Your task to perform on an android device: Go to CNN.com Image 0: 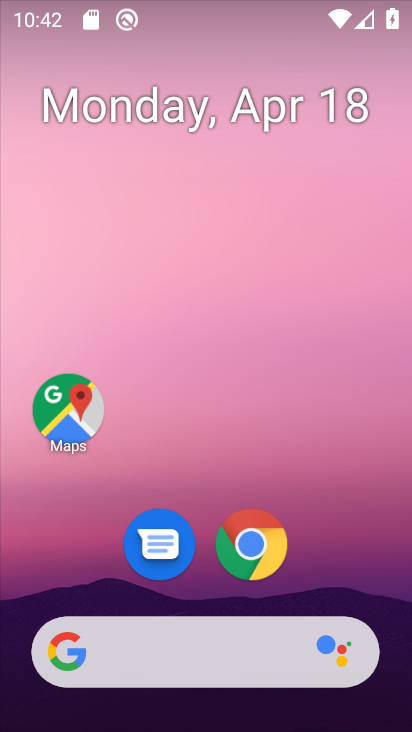
Step 0: click (251, 543)
Your task to perform on an android device: Go to CNN.com Image 1: 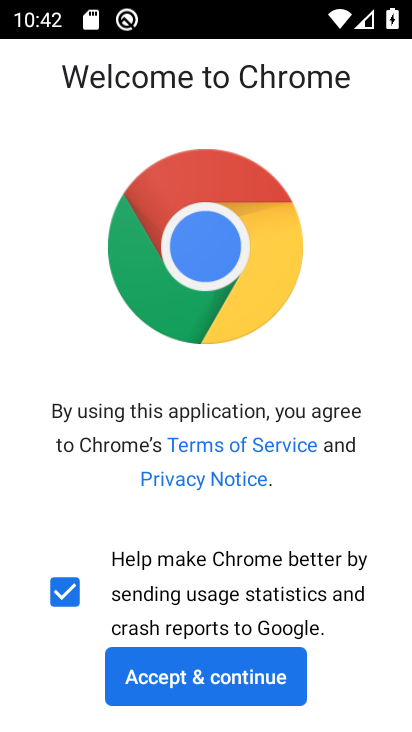
Step 1: click (238, 675)
Your task to perform on an android device: Go to CNN.com Image 2: 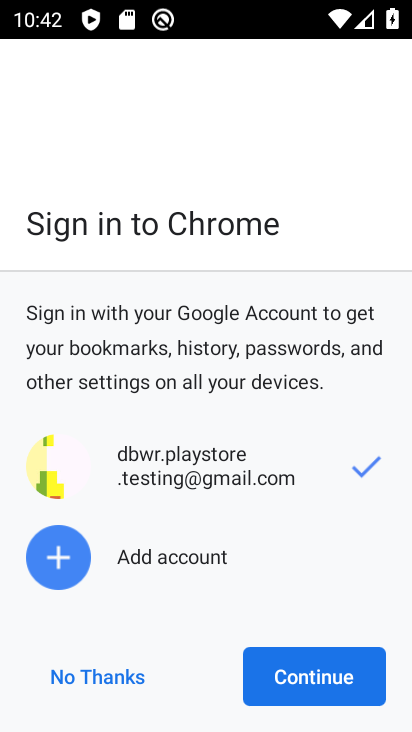
Step 2: click (294, 678)
Your task to perform on an android device: Go to CNN.com Image 3: 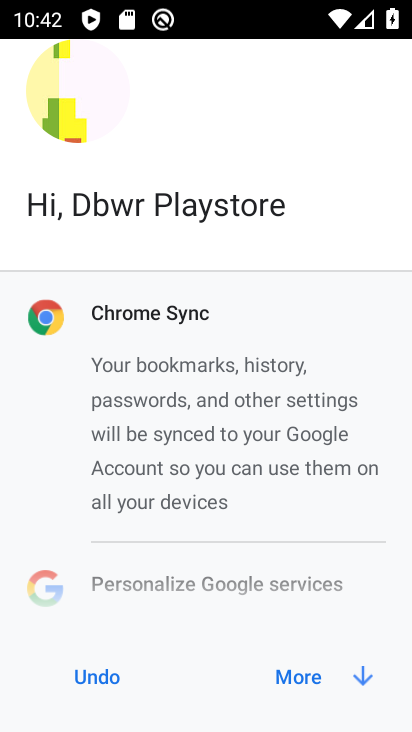
Step 3: click (302, 676)
Your task to perform on an android device: Go to CNN.com Image 4: 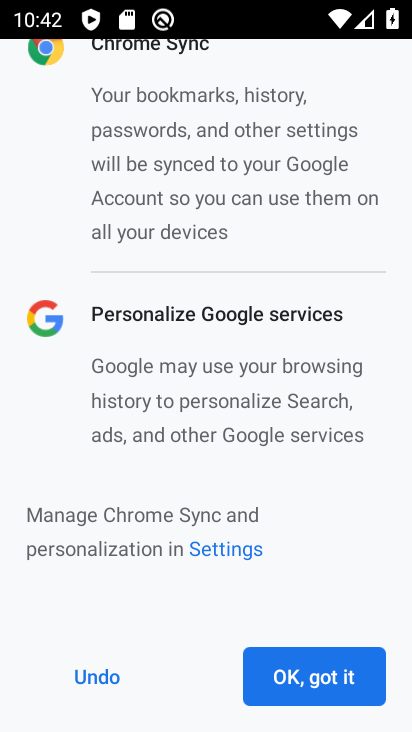
Step 4: click (302, 676)
Your task to perform on an android device: Go to CNN.com Image 5: 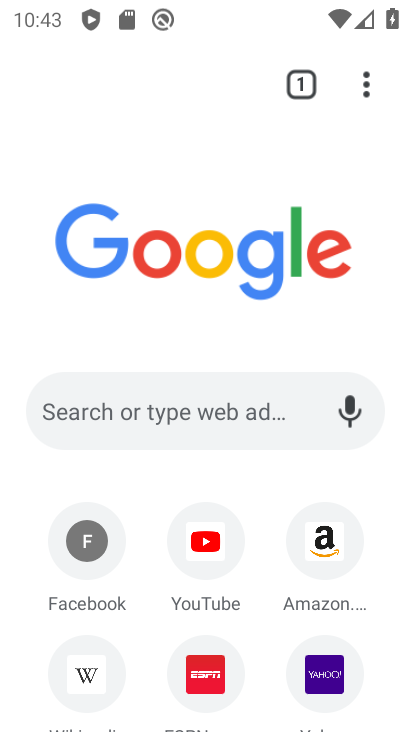
Step 5: click (257, 413)
Your task to perform on an android device: Go to CNN.com Image 6: 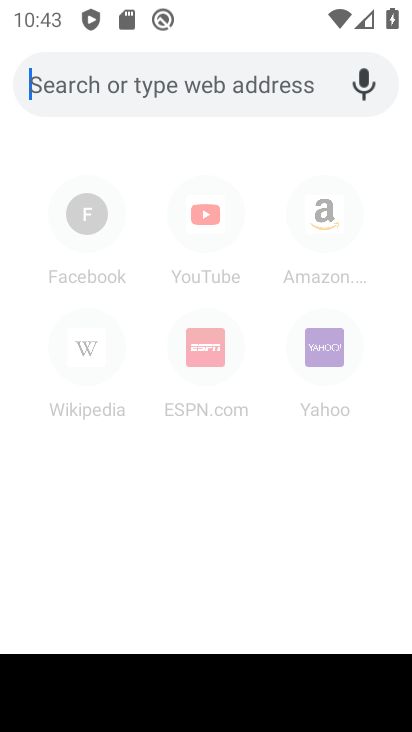
Step 6: type "CNN.com"
Your task to perform on an android device: Go to CNN.com Image 7: 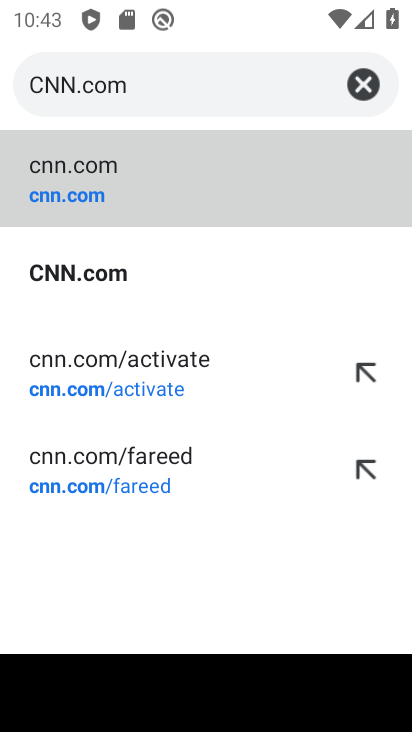
Step 7: click (45, 278)
Your task to perform on an android device: Go to CNN.com Image 8: 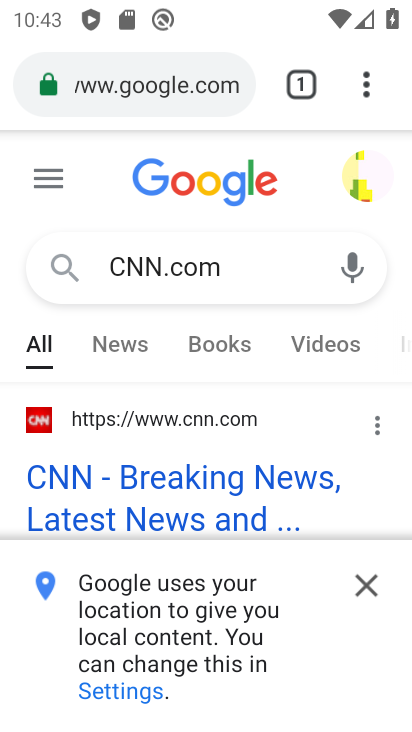
Step 8: click (374, 588)
Your task to perform on an android device: Go to CNN.com Image 9: 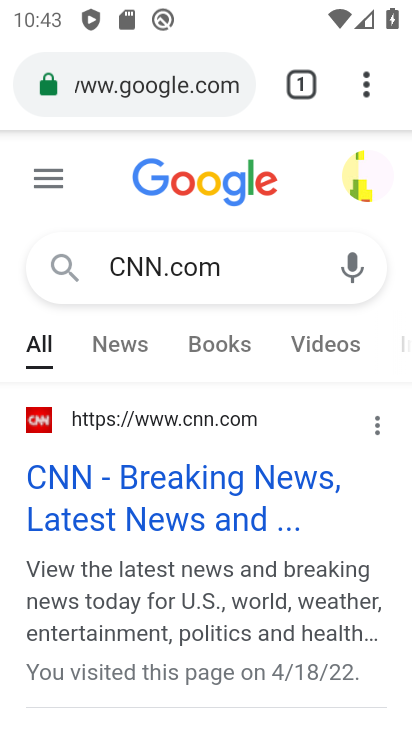
Step 9: task complete